Your task to perform on an android device: Go to privacy settings Image 0: 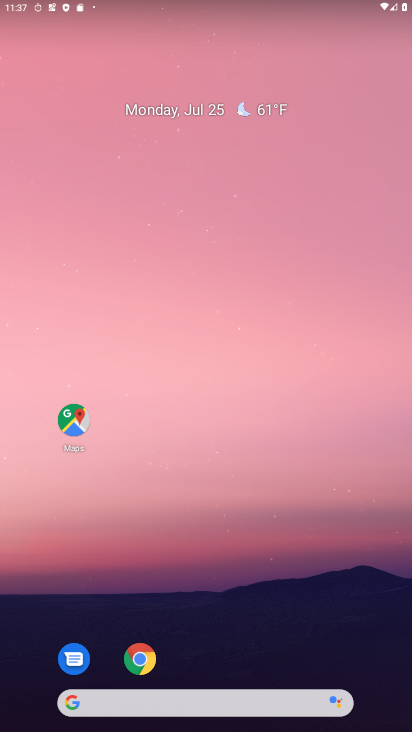
Step 0: drag from (14, 701) to (196, 203)
Your task to perform on an android device: Go to privacy settings Image 1: 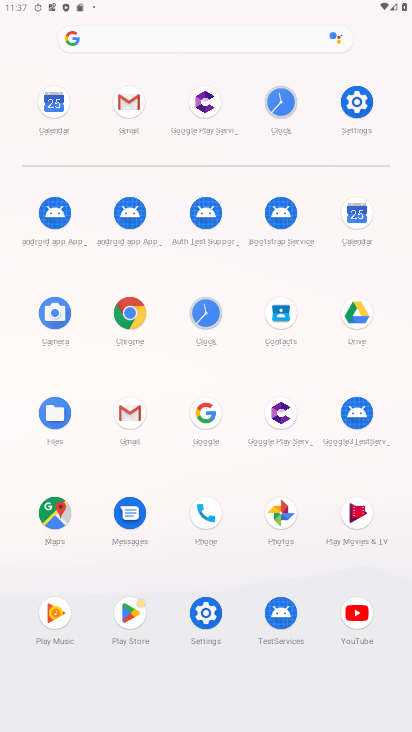
Step 1: click (207, 614)
Your task to perform on an android device: Go to privacy settings Image 2: 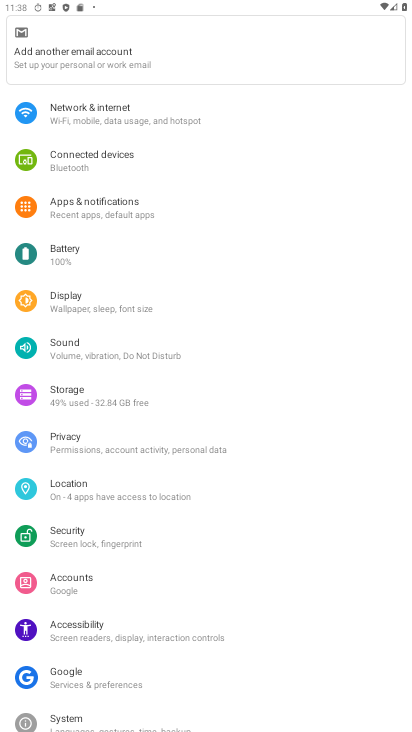
Step 2: click (74, 441)
Your task to perform on an android device: Go to privacy settings Image 3: 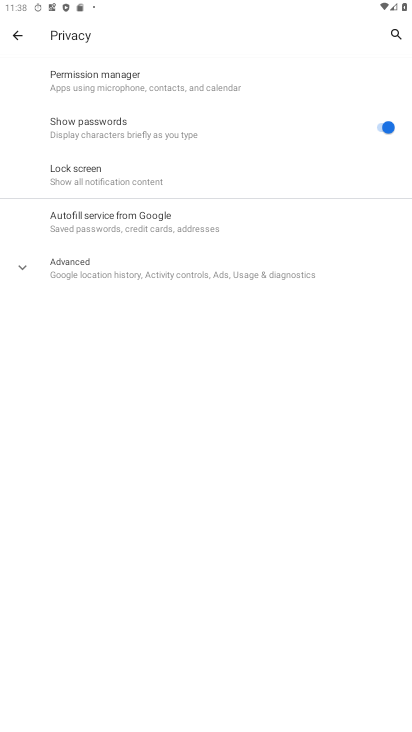
Step 3: task complete